Your task to perform on an android device: Open calendar and show me the first week of next month Image 0: 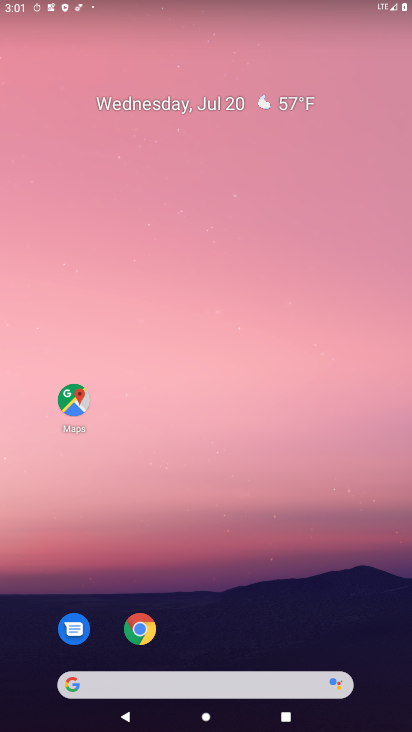
Step 0: drag from (220, 673) to (133, 1)
Your task to perform on an android device: Open calendar and show me the first week of next month Image 1: 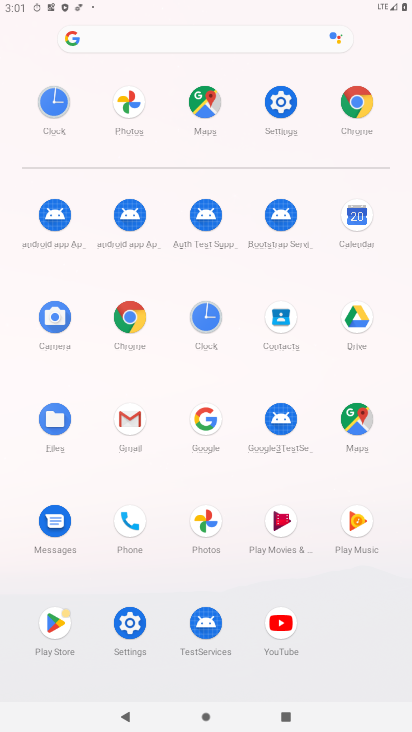
Step 1: click (362, 227)
Your task to perform on an android device: Open calendar and show me the first week of next month Image 2: 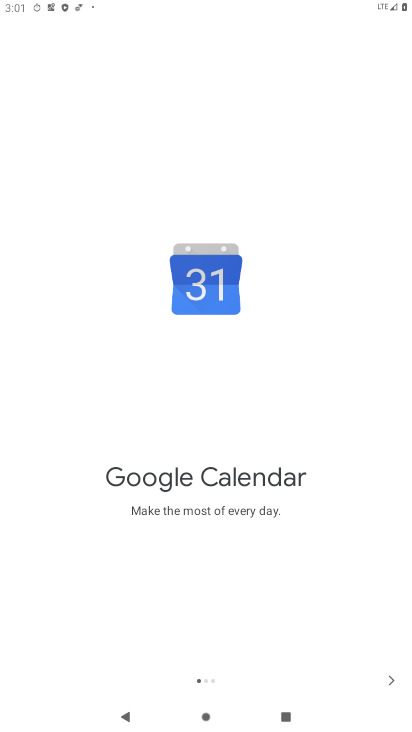
Step 2: click (392, 684)
Your task to perform on an android device: Open calendar and show me the first week of next month Image 3: 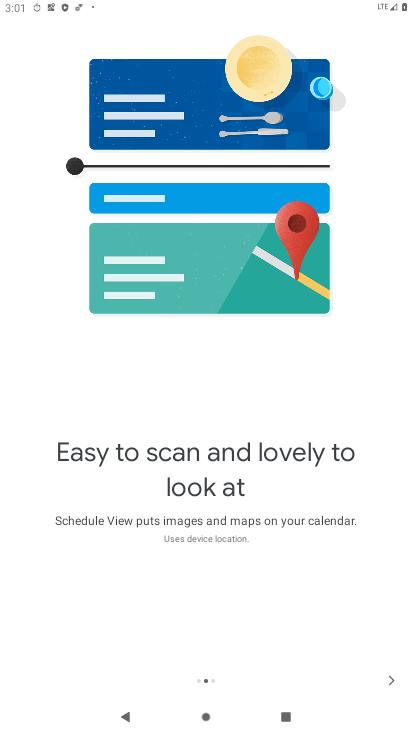
Step 3: click (387, 683)
Your task to perform on an android device: Open calendar and show me the first week of next month Image 4: 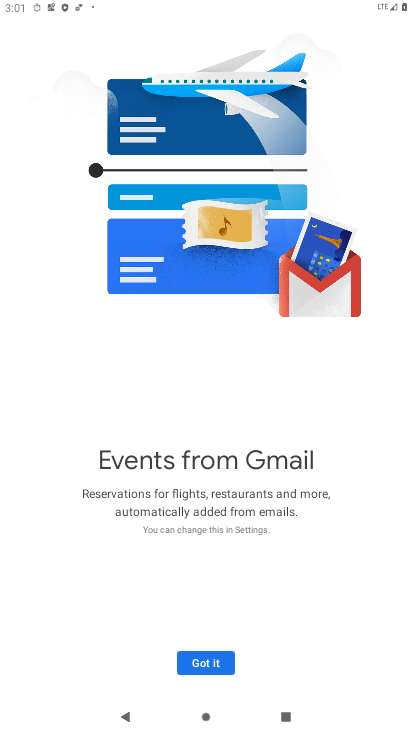
Step 4: click (209, 669)
Your task to perform on an android device: Open calendar and show me the first week of next month Image 5: 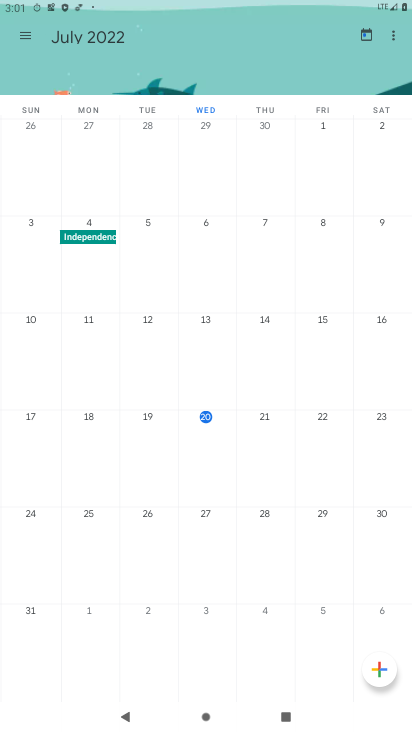
Step 5: click (30, 31)
Your task to perform on an android device: Open calendar and show me the first week of next month Image 6: 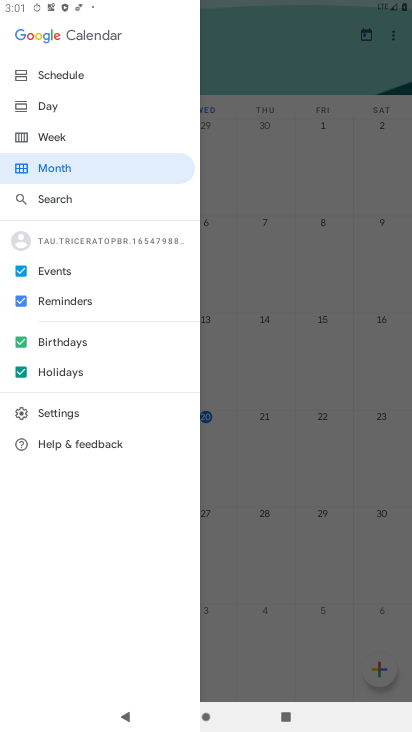
Step 6: click (100, 170)
Your task to perform on an android device: Open calendar and show me the first week of next month Image 7: 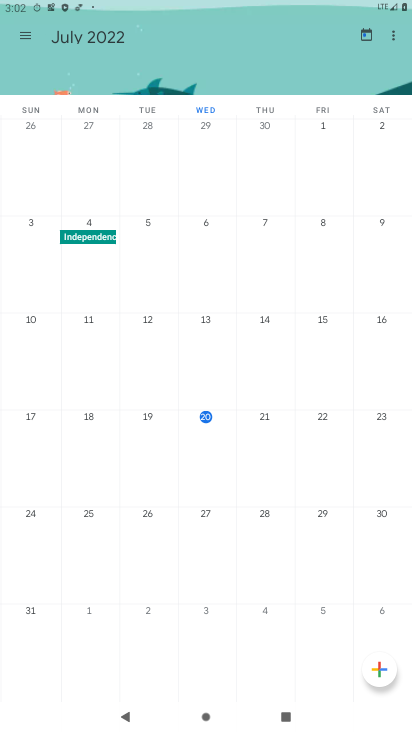
Step 7: task complete